Your task to perform on an android device: Open Yahoo.com Image 0: 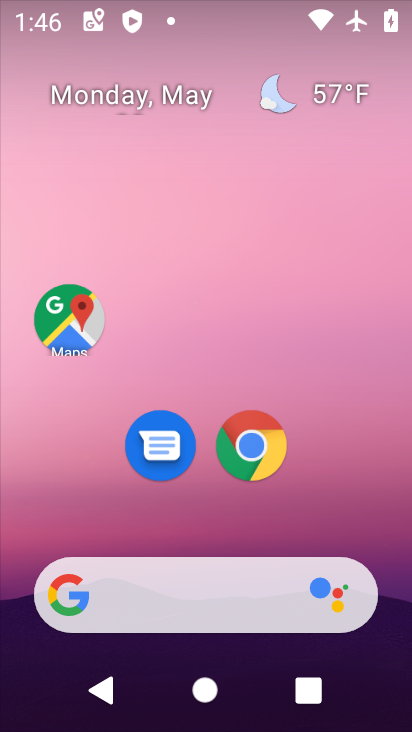
Step 0: click (248, 441)
Your task to perform on an android device: Open Yahoo.com Image 1: 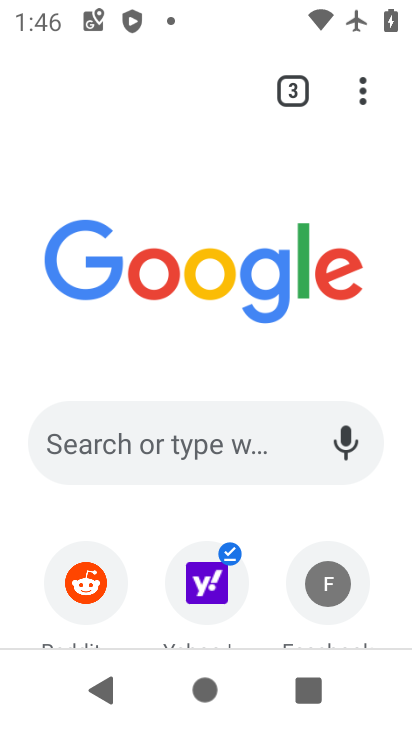
Step 1: click (194, 601)
Your task to perform on an android device: Open Yahoo.com Image 2: 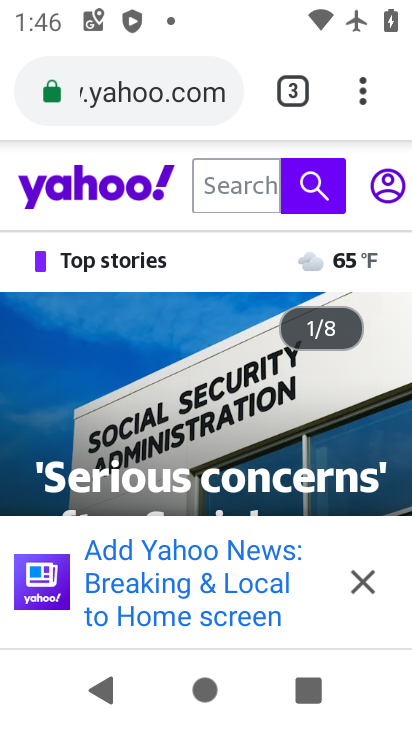
Step 2: task complete